Your task to perform on an android device: Open Google Chrome and click the shortcut for Amazon.com Image 0: 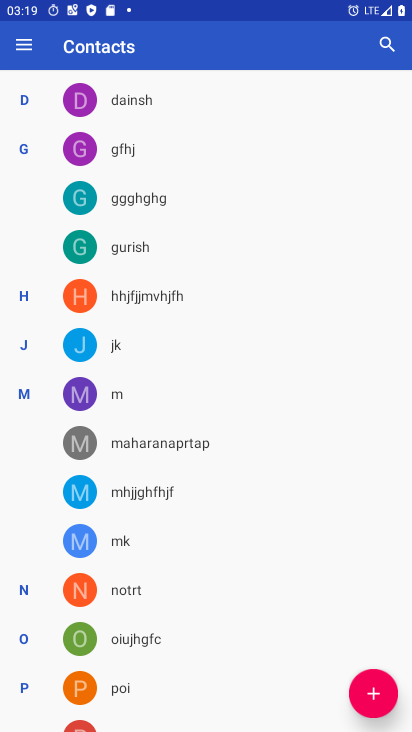
Step 0: press home button
Your task to perform on an android device: Open Google Chrome and click the shortcut for Amazon.com Image 1: 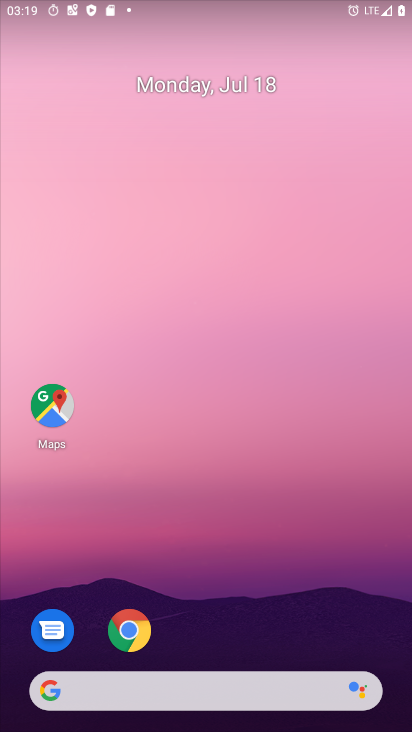
Step 1: click (132, 616)
Your task to perform on an android device: Open Google Chrome and click the shortcut for Amazon.com Image 2: 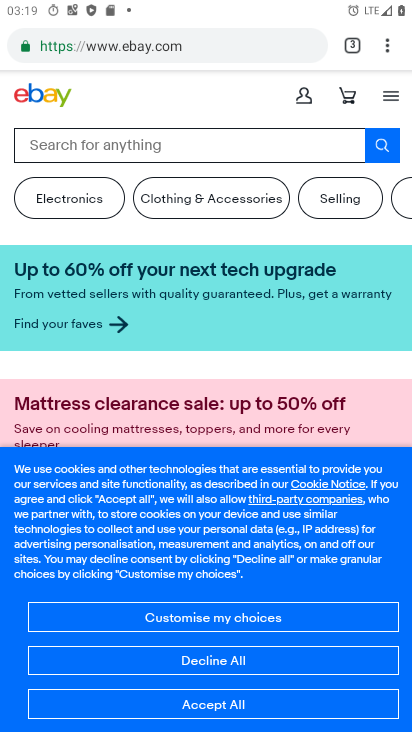
Step 2: click (358, 43)
Your task to perform on an android device: Open Google Chrome and click the shortcut for Amazon.com Image 3: 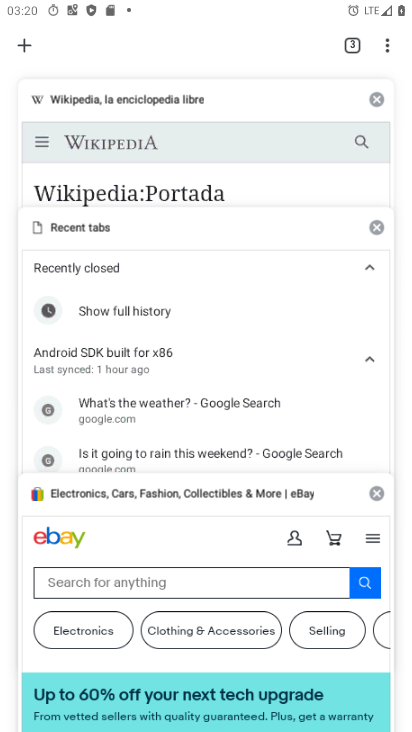
Step 3: click (29, 59)
Your task to perform on an android device: Open Google Chrome and click the shortcut for Amazon.com Image 4: 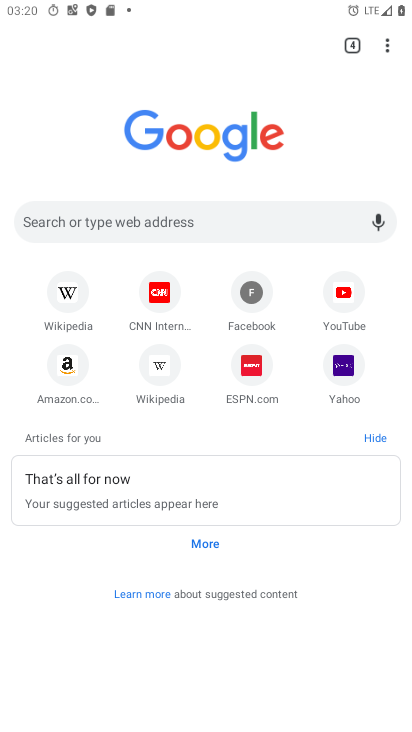
Step 4: click (68, 362)
Your task to perform on an android device: Open Google Chrome and click the shortcut for Amazon.com Image 5: 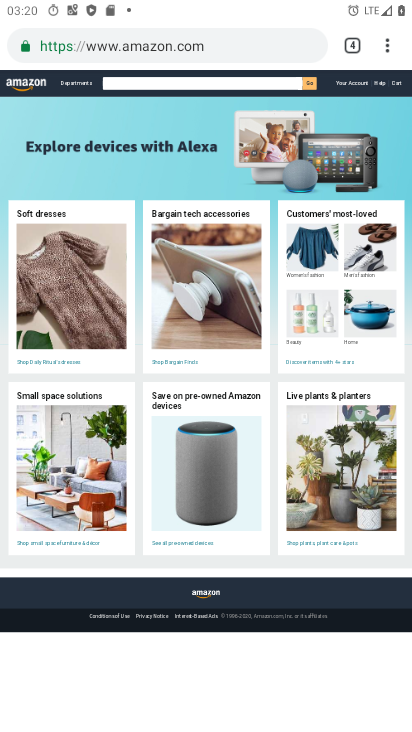
Step 5: task complete